Your task to perform on an android device: Toggle the flashlight Image 0: 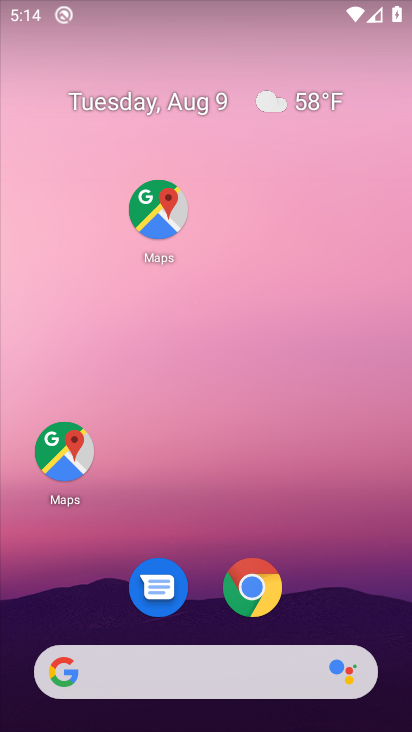
Step 0: drag from (277, 702) to (225, 279)
Your task to perform on an android device: Toggle the flashlight Image 1: 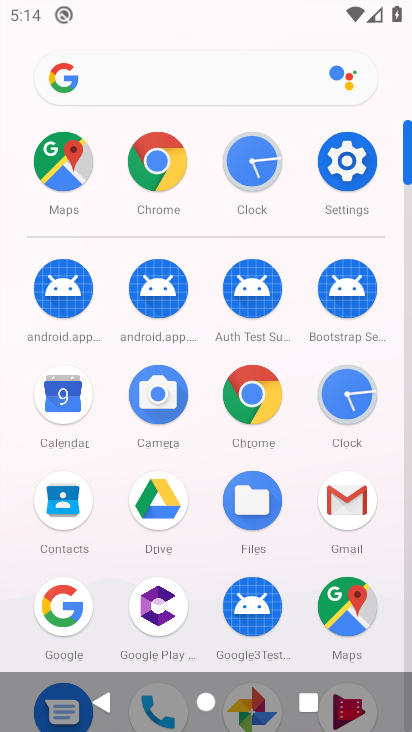
Step 1: task complete